Your task to perform on an android device: Open Youtube and go to the subscriptions tab Image 0: 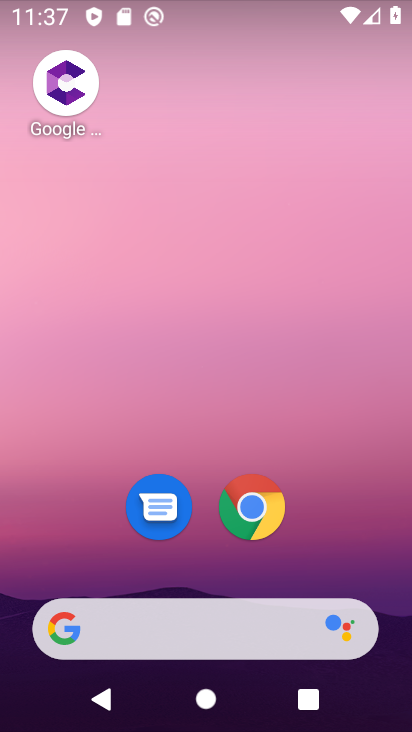
Step 0: drag from (287, 568) to (112, 5)
Your task to perform on an android device: Open Youtube and go to the subscriptions tab Image 1: 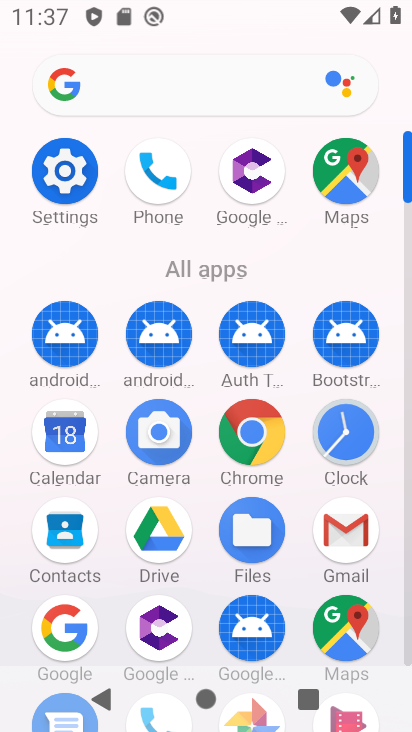
Step 1: drag from (301, 598) to (193, 198)
Your task to perform on an android device: Open Youtube and go to the subscriptions tab Image 2: 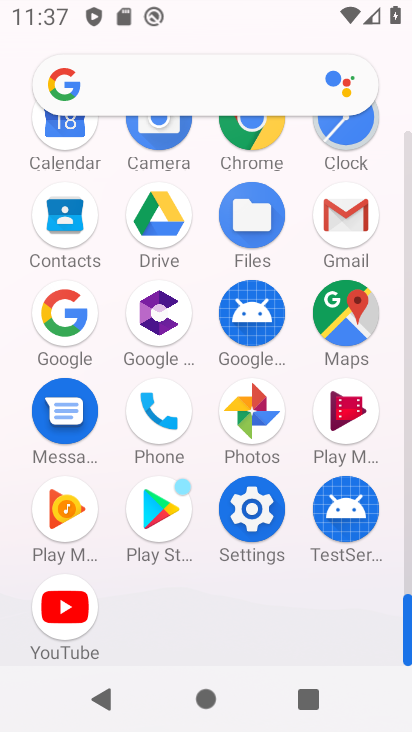
Step 2: click (68, 622)
Your task to perform on an android device: Open Youtube and go to the subscriptions tab Image 3: 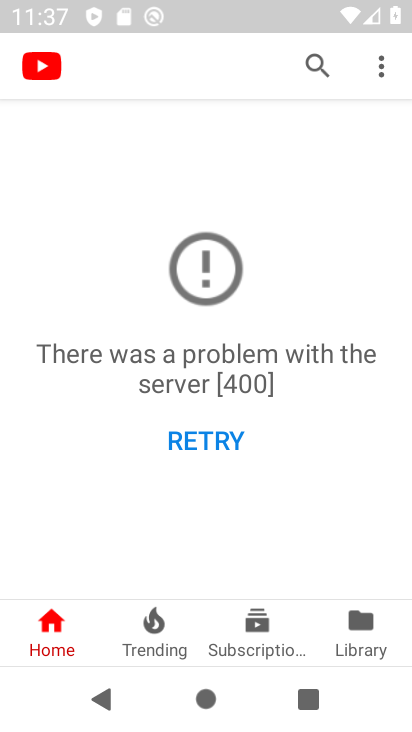
Step 3: click (251, 643)
Your task to perform on an android device: Open Youtube and go to the subscriptions tab Image 4: 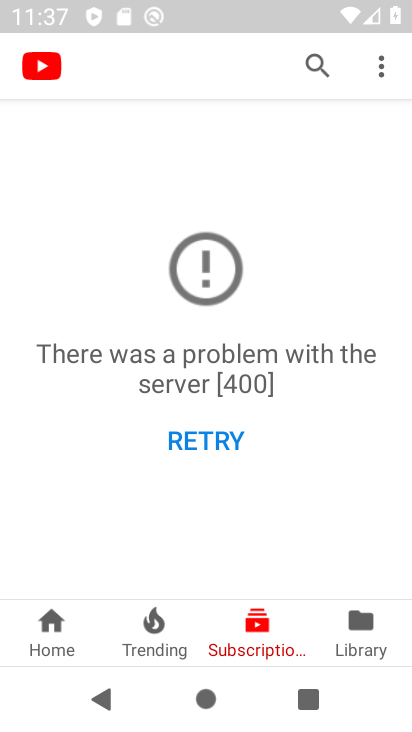
Step 4: task complete